Your task to perform on an android device: Open the calendar app, open the side menu, and click the "Day" option Image 0: 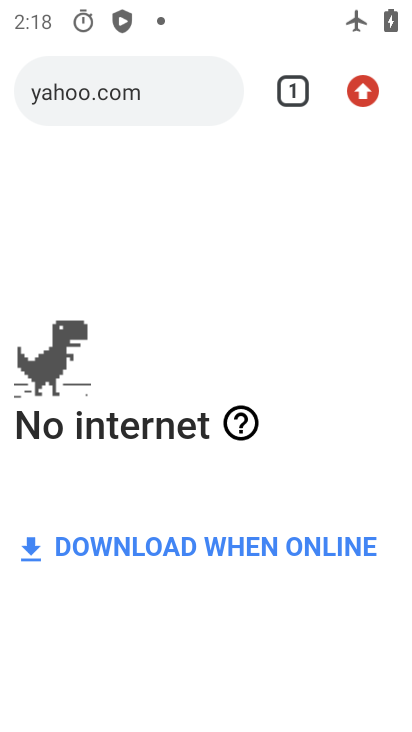
Step 0: press home button
Your task to perform on an android device: Open the calendar app, open the side menu, and click the "Day" option Image 1: 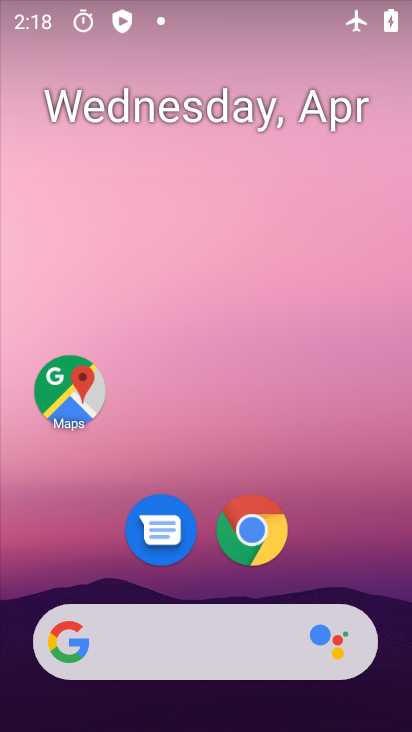
Step 1: drag from (310, 555) to (364, 161)
Your task to perform on an android device: Open the calendar app, open the side menu, and click the "Day" option Image 2: 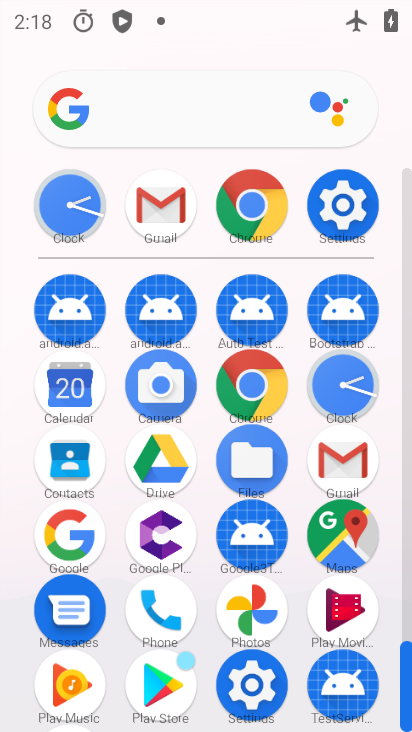
Step 2: click (66, 389)
Your task to perform on an android device: Open the calendar app, open the side menu, and click the "Day" option Image 3: 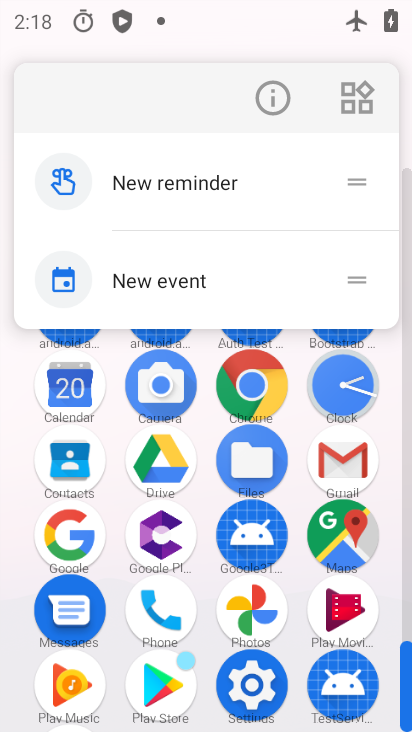
Step 3: click (66, 389)
Your task to perform on an android device: Open the calendar app, open the side menu, and click the "Day" option Image 4: 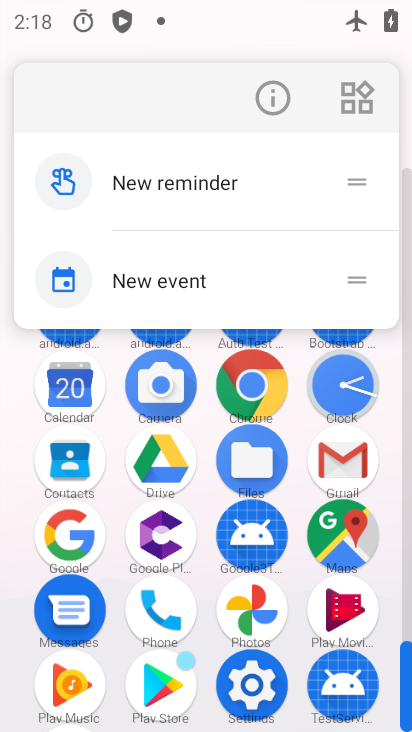
Step 4: click (66, 389)
Your task to perform on an android device: Open the calendar app, open the side menu, and click the "Day" option Image 5: 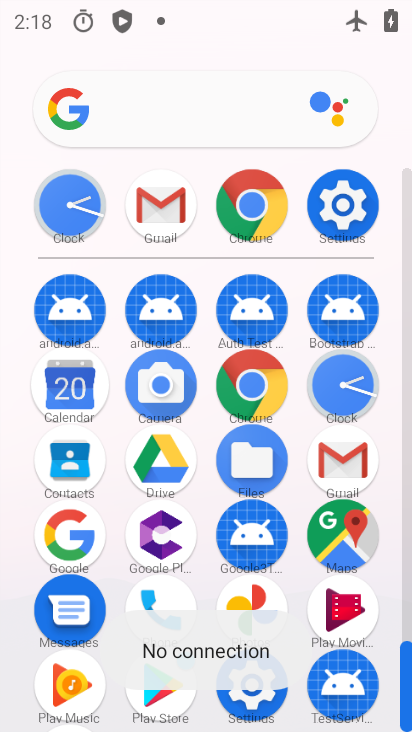
Step 5: click (67, 390)
Your task to perform on an android device: Open the calendar app, open the side menu, and click the "Day" option Image 6: 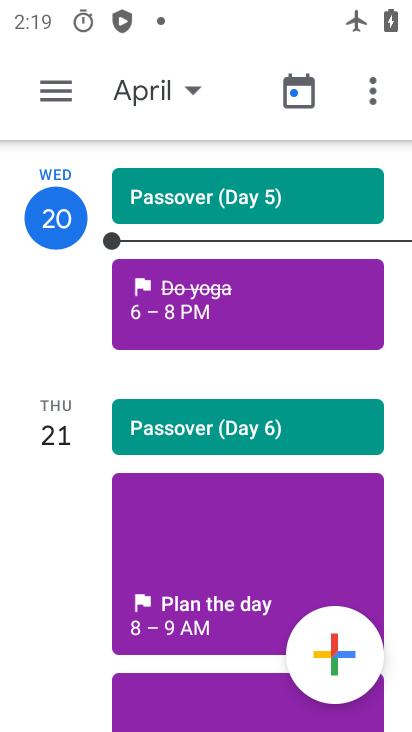
Step 6: click (44, 91)
Your task to perform on an android device: Open the calendar app, open the side menu, and click the "Day" option Image 7: 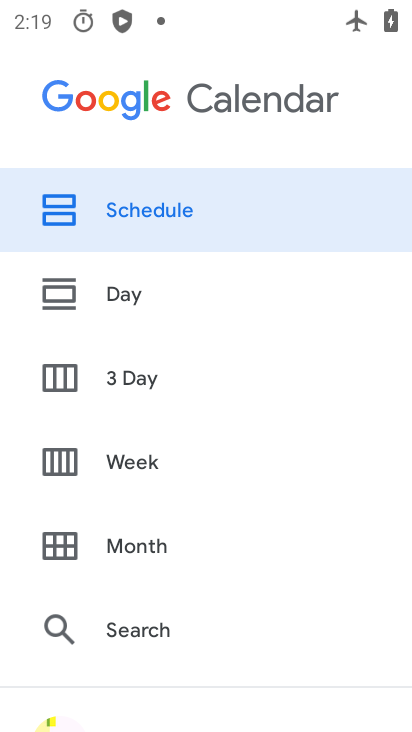
Step 7: click (124, 304)
Your task to perform on an android device: Open the calendar app, open the side menu, and click the "Day" option Image 8: 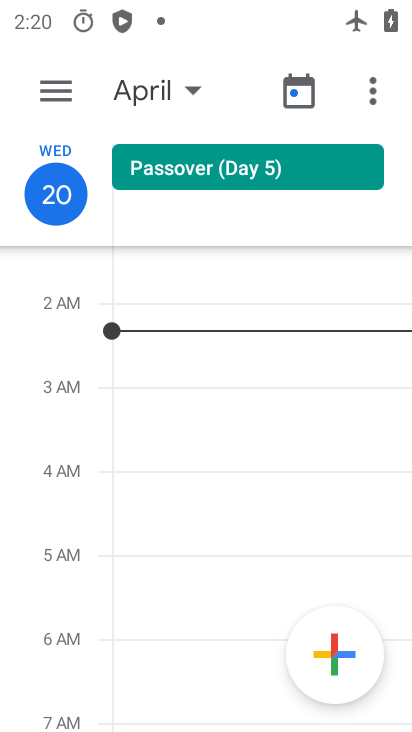
Step 8: task complete